Your task to perform on an android device: Open maps Image 0: 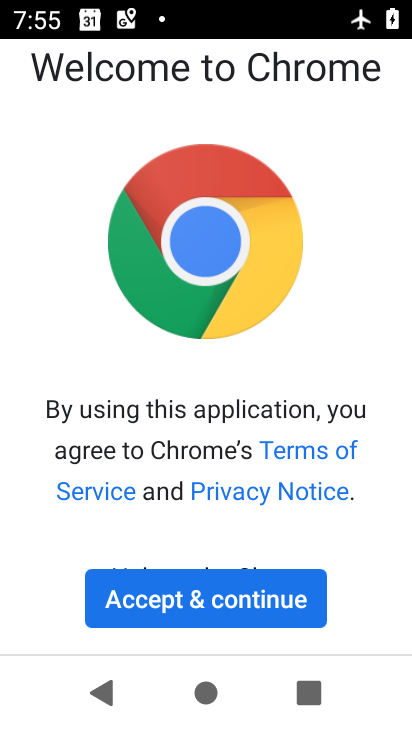
Step 0: press home button
Your task to perform on an android device: Open maps Image 1: 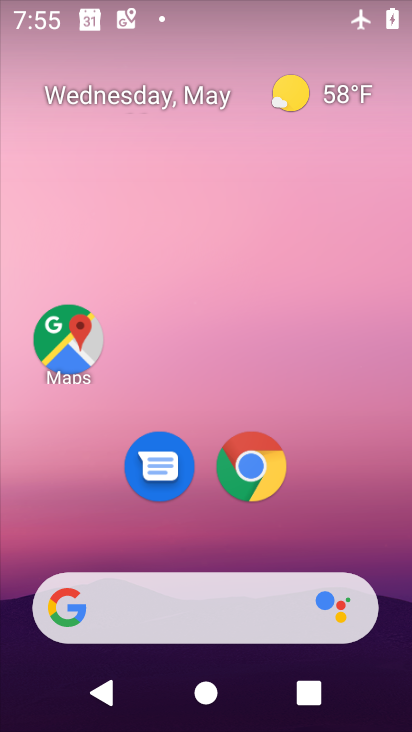
Step 1: click (61, 346)
Your task to perform on an android device: Open maps Image 2: 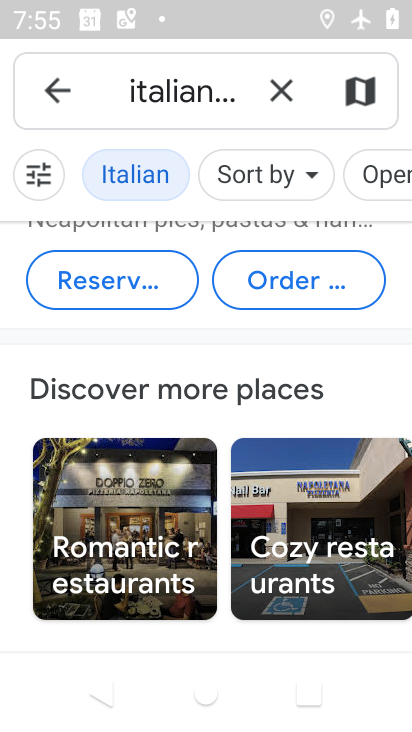
Step 2: click (273, 97)
Your task to perform on an android device: Open maps Image 3: 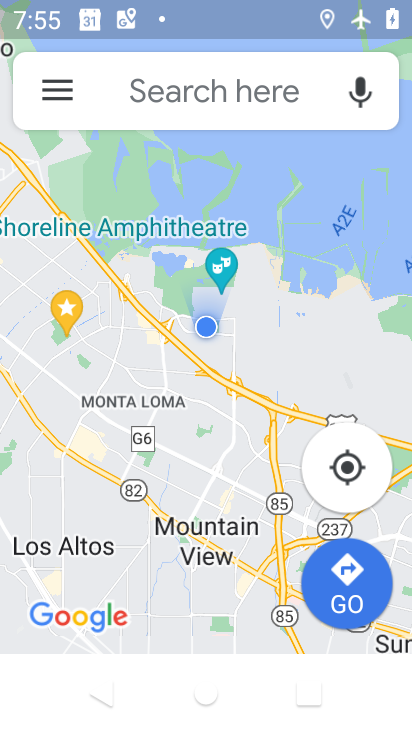
Step 3: task complete